Your task to perform on an android device: check battery use Image 0: 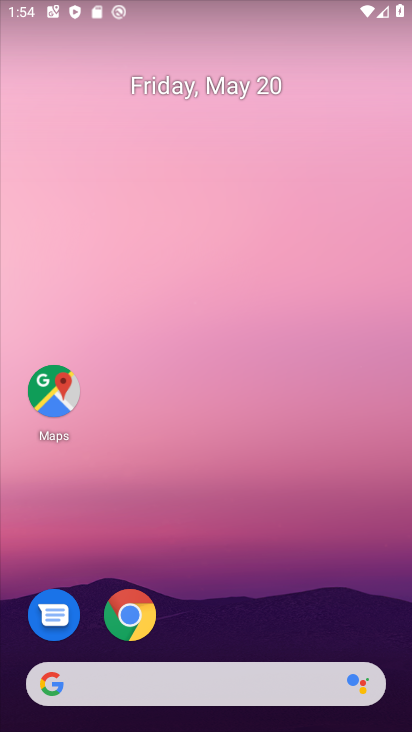
Step 0: drag from (322, 612) to (310, 317)
Your task to perform on an android device: check battery use Image 1: 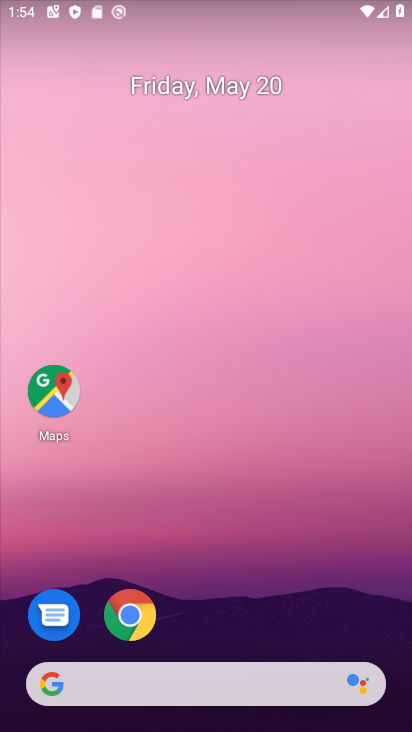
Step 1: drag from (263, 590) to (264, 277)
Your task to perform on an android device: check battery use Image 2: 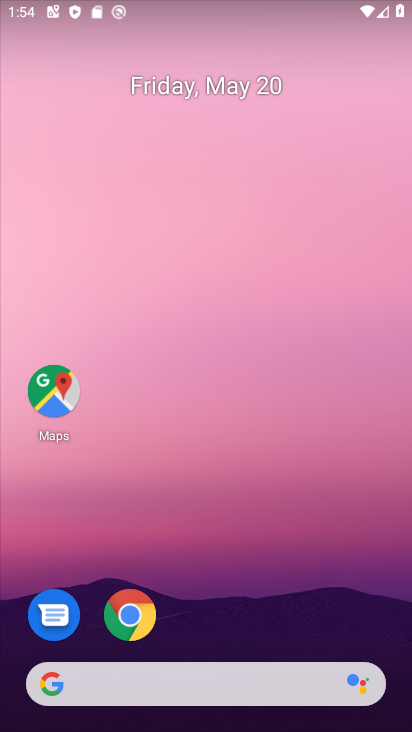
Step 2: drag from (259, 551) to (279, 181)
Your task to perform on an android device: check battery use Image 3: 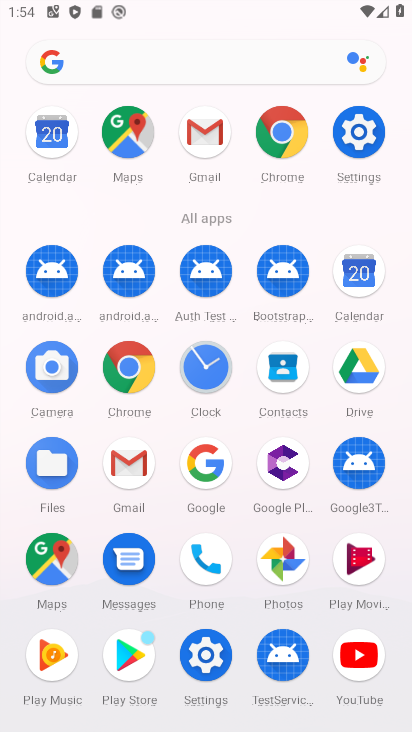
Step 3: click (346, 130)
Your task to perform on an android device: check battery use Image 4: 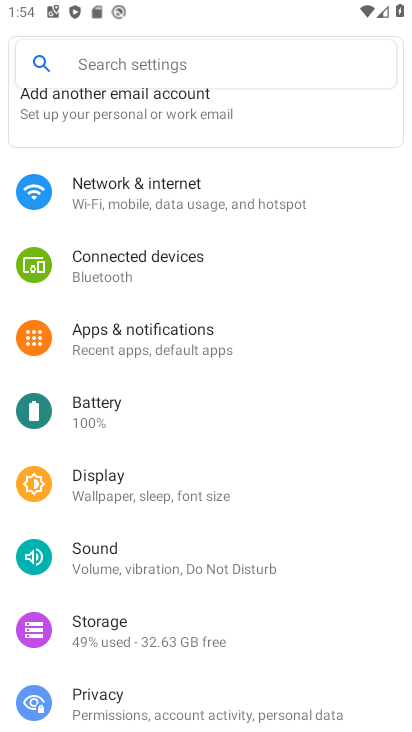
Step 4: click (123, 423)
Your task to perform on an android device: check battery use Image 5: 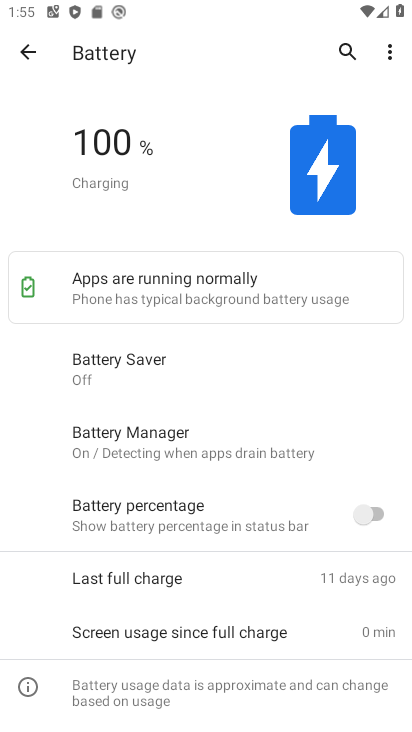
Step 5: task complete